Your task to perform on an android device: Show me some nice wallpapers for my desktop Image 0: 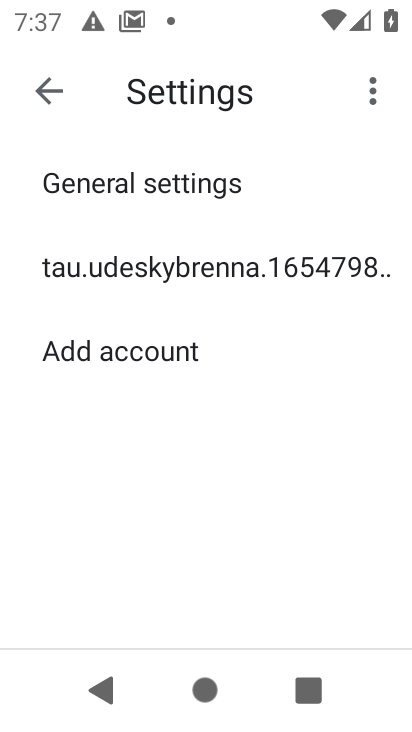
Step 0: press home button
Your task to perform on an android device: Show me some nice wallpapers for my desktop Image 1: 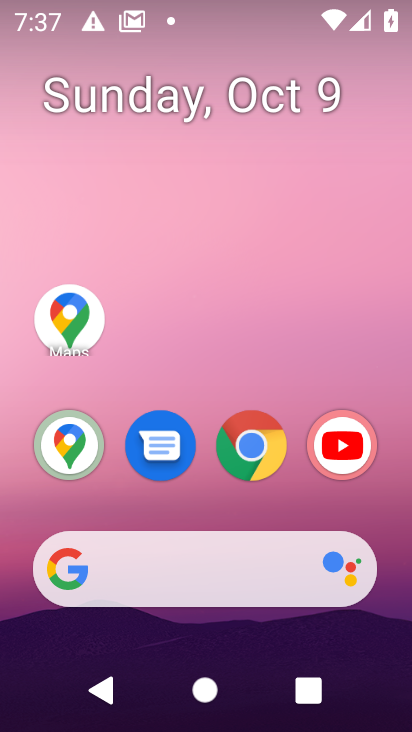
Step 1: drag from (197, 512) to (236, 152)
Your task to perform on an android device: Show me some nice wallpapers for my desktop Image 2: 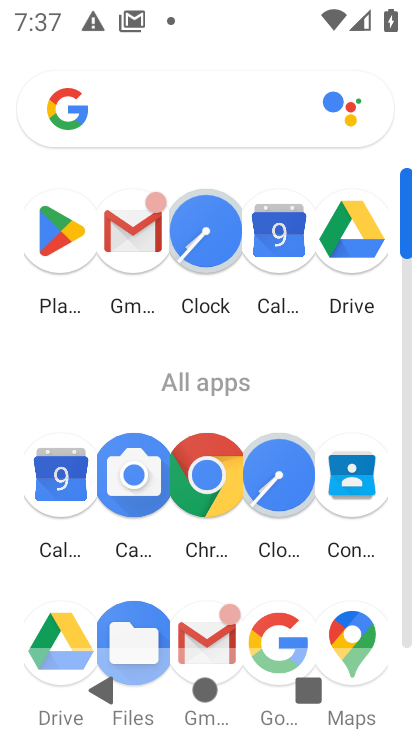
Step 2: click (271, 637)
Your task to perform on an android device: Show me some nice wallpapers for my desktop Image 3: 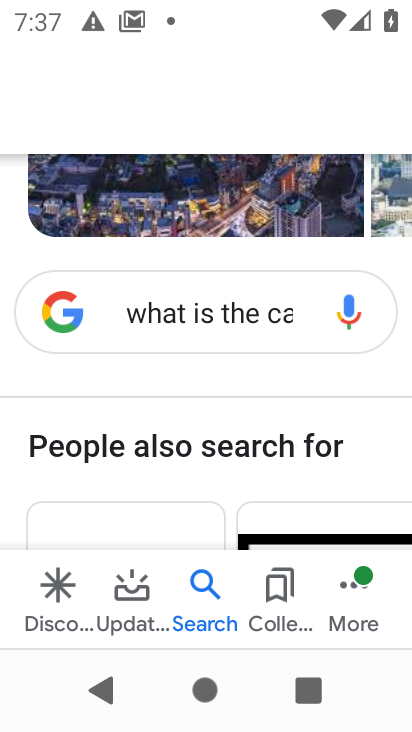
Step 3: click (189, 321)
Your task to perform on an android device: Show me some nice wallpapers for my desktop Image 4: 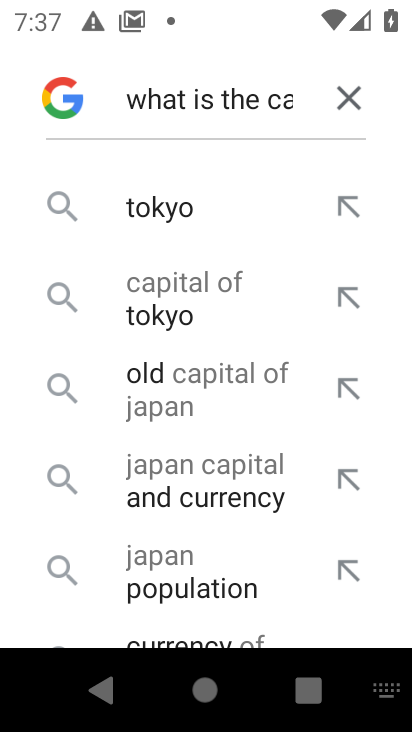
Step 4: click (348, 98)
Your task to perform on an android device: Show me some nice wallpapers for my desktop Image 5: 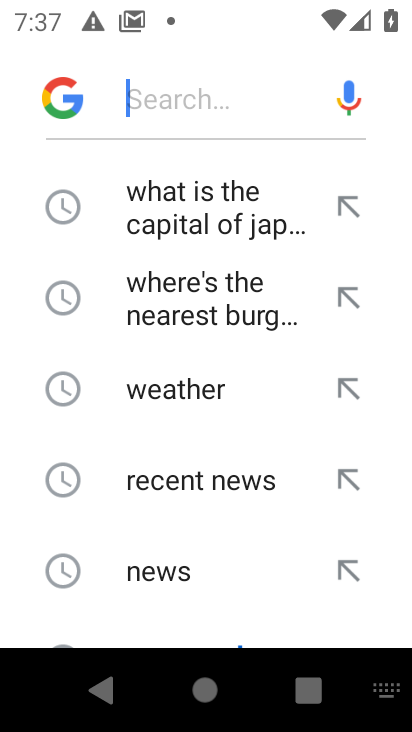
Step 5: type "Show me some nice wallpapers for my desktop"
Your task to perform on an android device: Show me some nice wallpapers for my desktop Image 6: 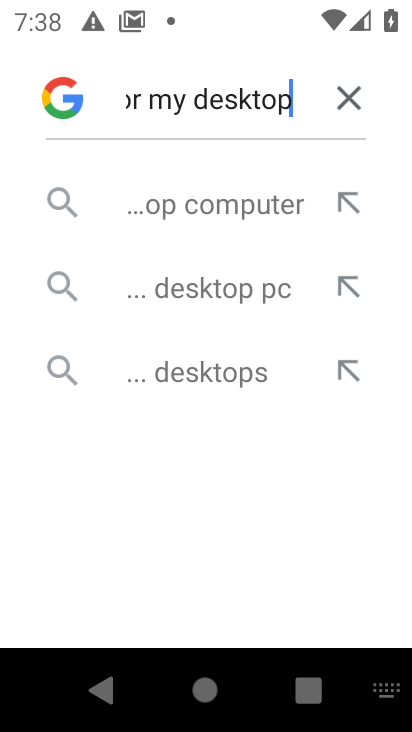
Step 6: click (231, 291)
Your task to perform on an android device: Show me some nice wallpapers for my desktop Image 7: 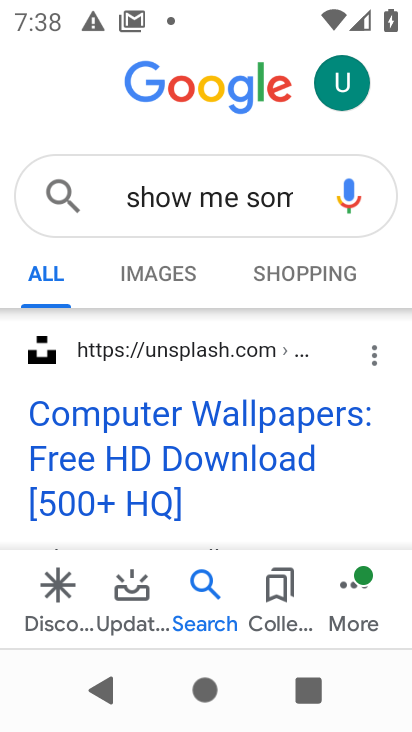
Step 7: click (179, 434)
Your task to perform on an android device: Show me some nice wallpapers for my desktop Image 8: 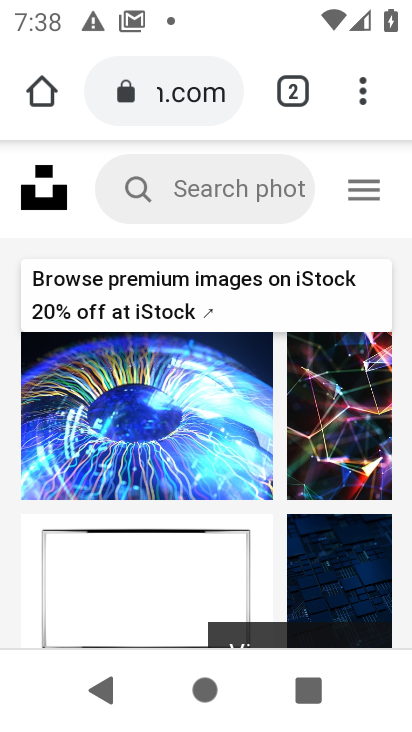
Step 8: task complete